Your task to perform on an android device: Open Reddit.com Image 0: 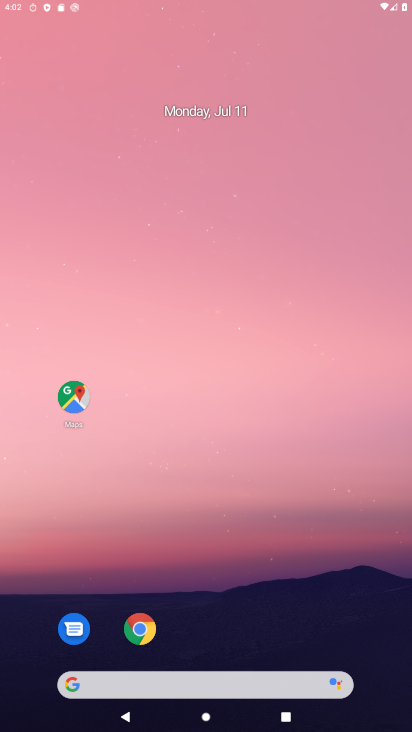
Step 0: click (194, 308)
Your task to perform on an android device: Open Reddit.com Image 1: 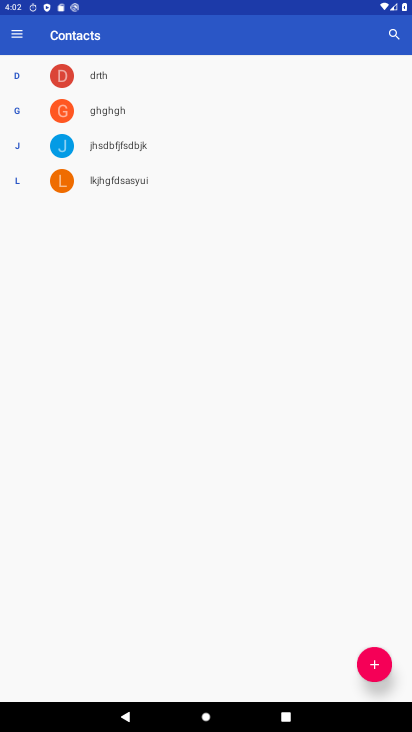
Step 1: press home button
Your task to perform on an android device: Open Reddit.com Image 2: 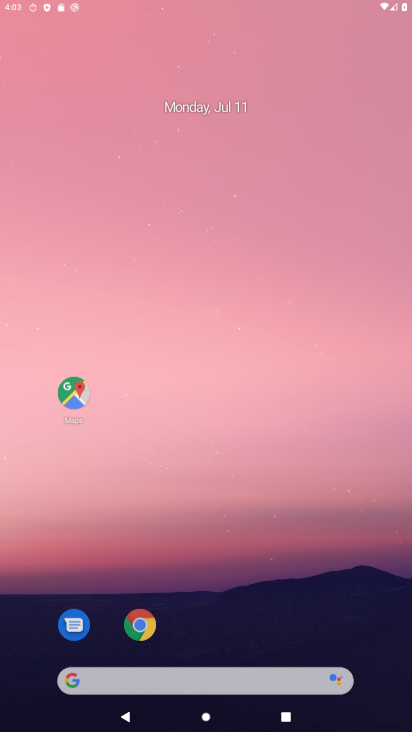
Step 2: drag from (203, 602) to (242, 41)
Your task to perform on an android device: Open Reddit.com Image 3: 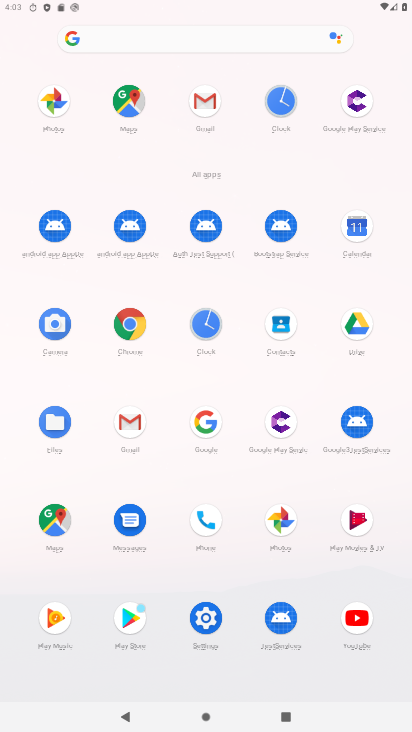
Step 3: click (123, 321)
Your task to perform on an android device: Open Reddit.com Image 4: 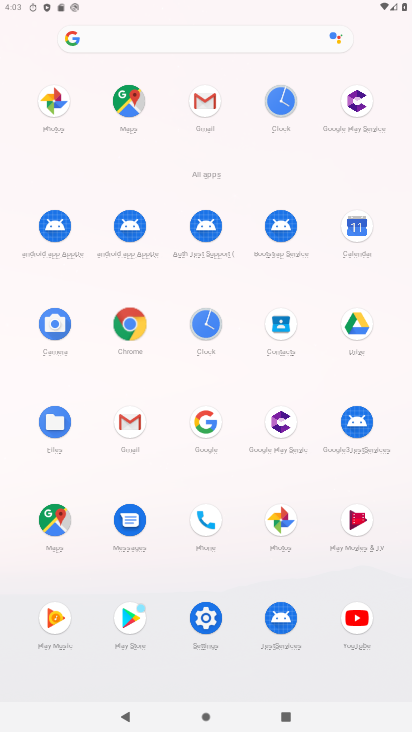
Step 4: click (123, 321)
Your task to perform on an android device: Open Reddit.com Image 5: 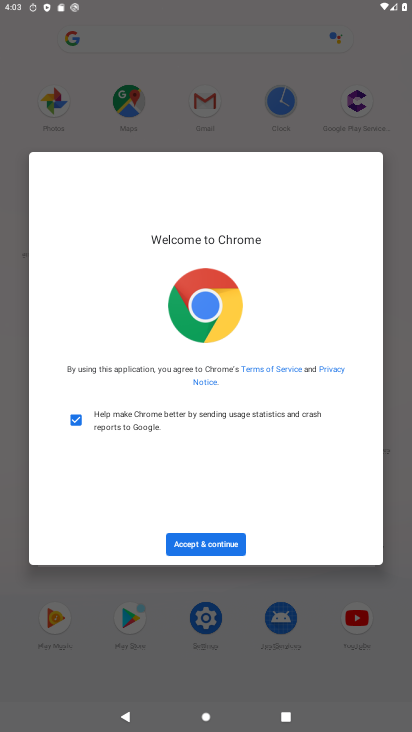
Step 5: click (191, 546)
Your task to perform on an android device: Open Reddit.com Image 6: 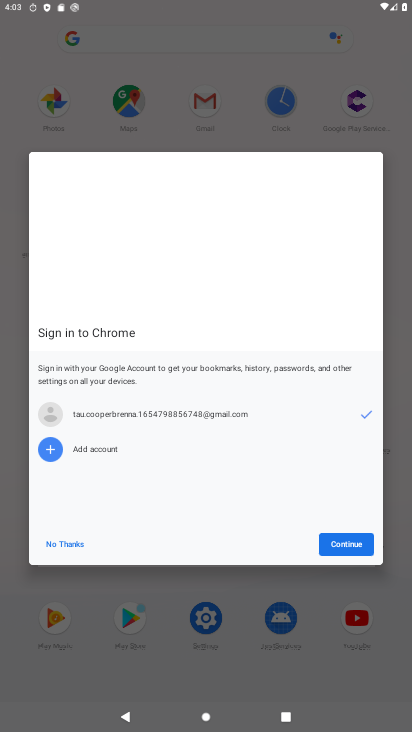
Step 6: click (345, 540)
Your task to perform on an android device: Open Reddit.com Image 7: 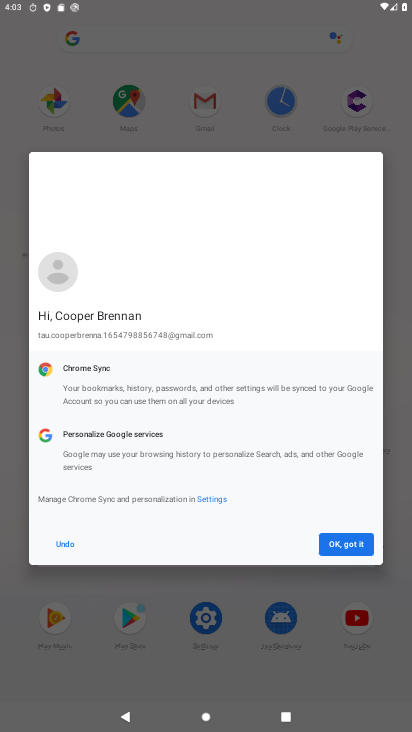
Step 7: click (359, 550)
Your task to perform on an android device: Open Reddit.com Image 8: 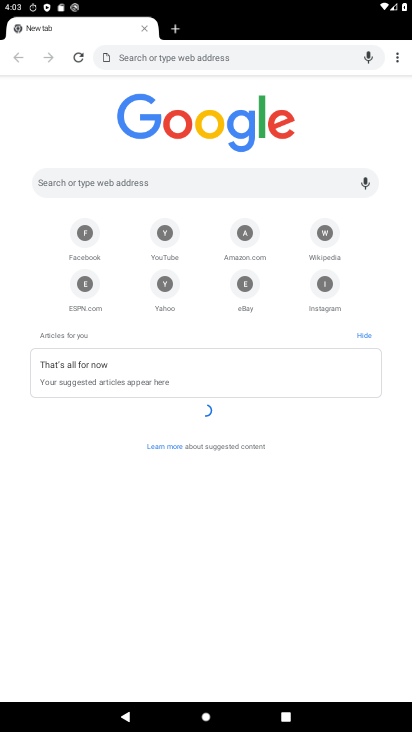
Step 8: click (180, 28)
Your task to perform on an android device: Open Reddit.com Image 9: 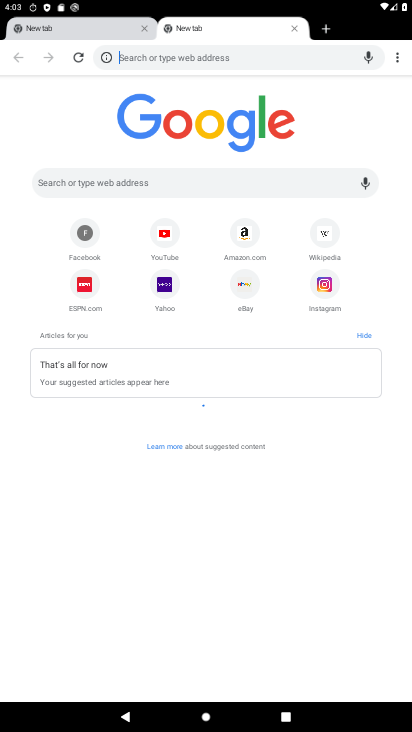
Step 9: click (163, 53)
Your task to perform on an android device: Open Reddit.com Image 10: 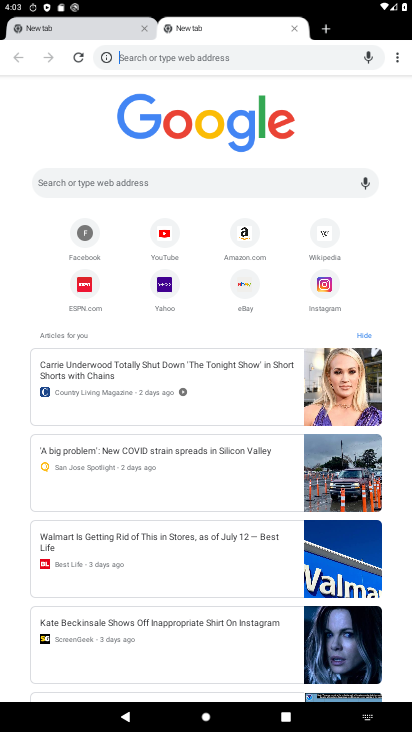
Step 10: type "reddit.com"
Your task to perform on an android device: Open Reddit.com Image 11: 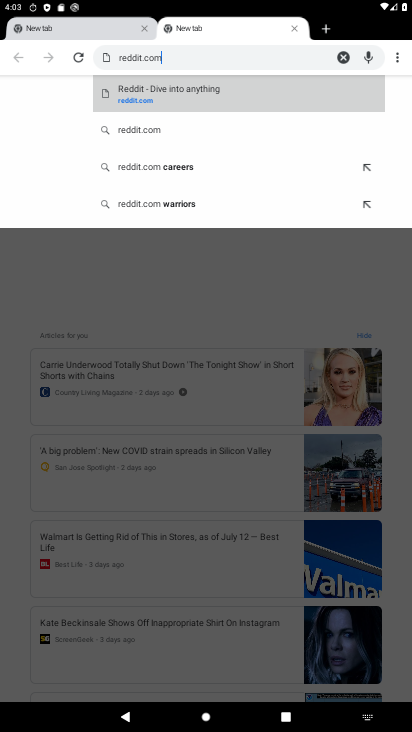
Step 11: drag from (168, 548) to (234, 79)
Your task to perform on an android device: Open Reddit.com Image 12: 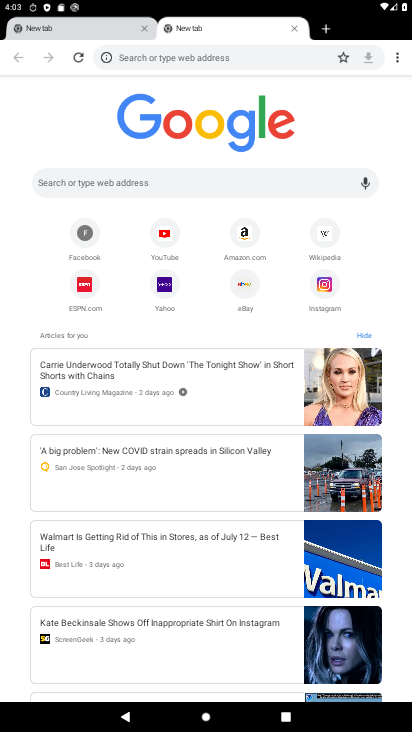
Step 12: drag from (205, 488) to (254, 216)
Your task to perform on an android device: Open Reddit.com Image 13: 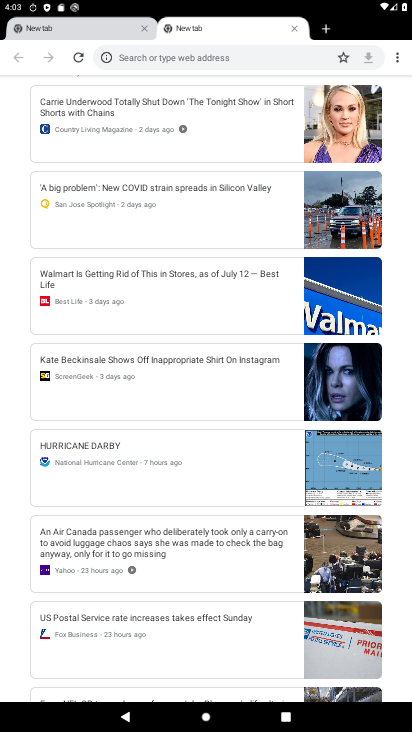
Step 13: drag from (238, 119) to (197, 573)
Your task to perform on an android device: Open Reddit.com Image 14: 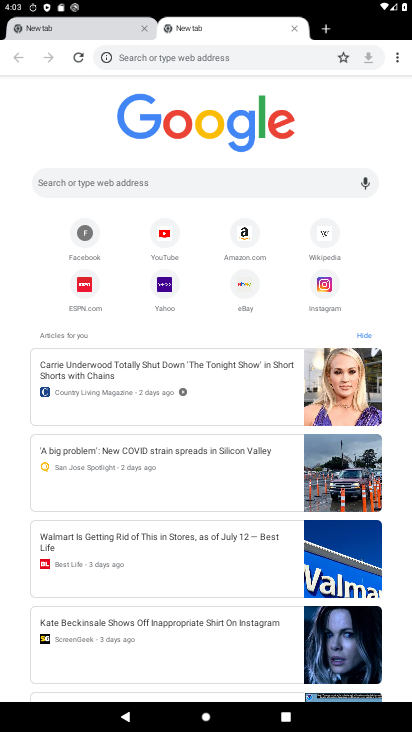
Step 14: click (134, 187)
Your task to perform on an android device: Open Reddit.com Image 15: 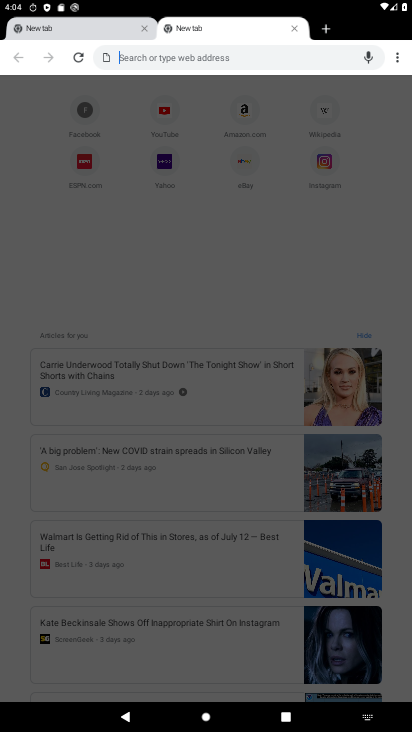
Step 15: type "reddit.com"
Your task to perform on an android device: Open Reddit.com Image 16: 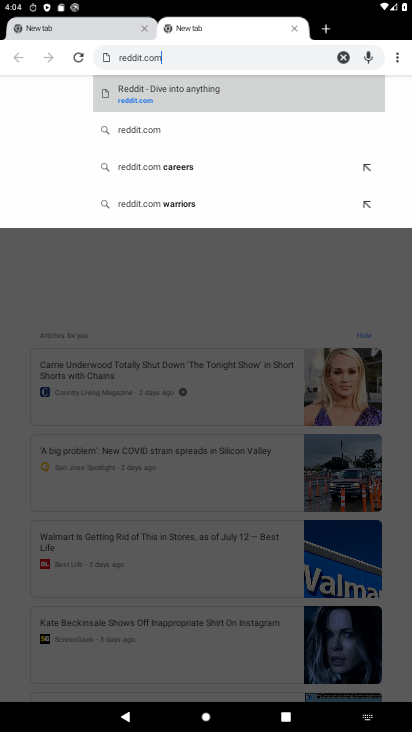
Step 16: click (134, 92)
Your task to perform on an android device: Open Reddit.com Image 17: 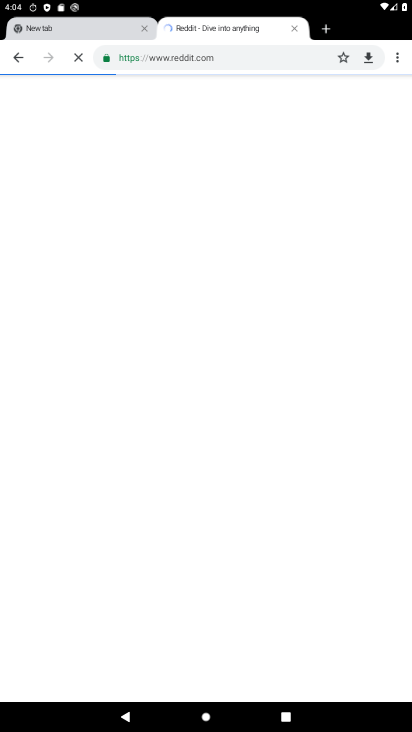
Step 17: task complete